Your task to perform on an android device: turn off airplane mode Image 0: 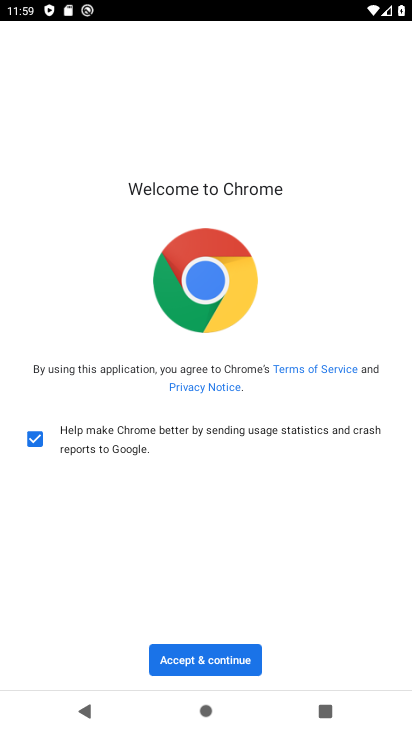
Step 0: press home button
Your task to perform on an android device: turn off airplane mode Image 1: 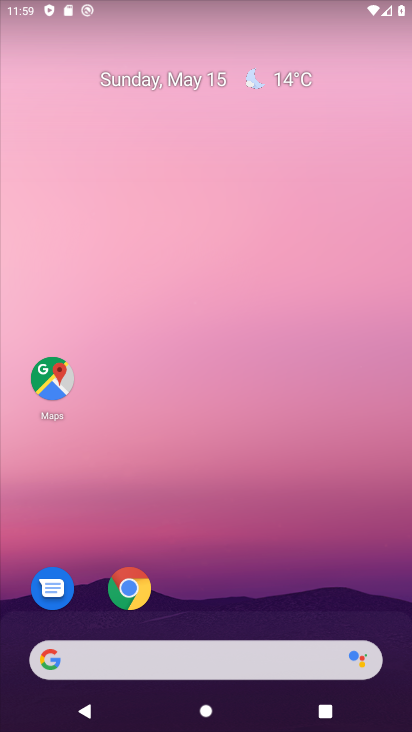
Step 1: drag from (302, 133) to (298, 45)
Your task to perform on an android device: turn off airplane mode Image 2: 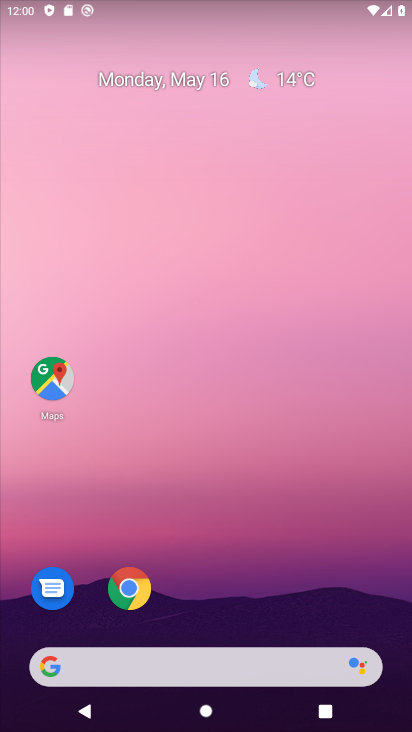
Step 2: drag from (327, 469) to (313, 0)
Your task to perform on an android device: turn off airplane mode Image 3: 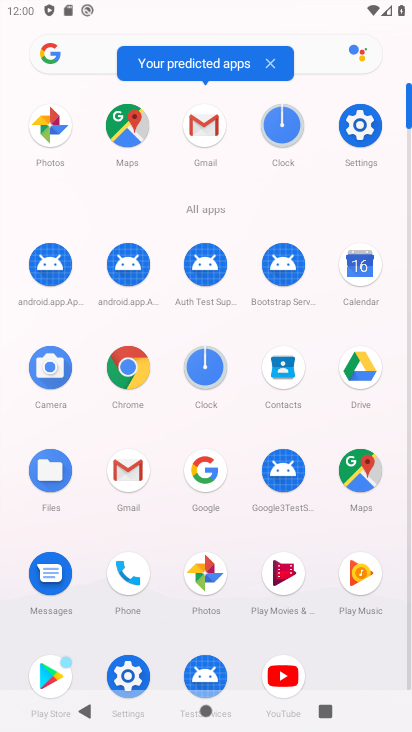
Step 3: click (359, 106)
Your task to perform on an android device: turn off airplane mode Image 4: 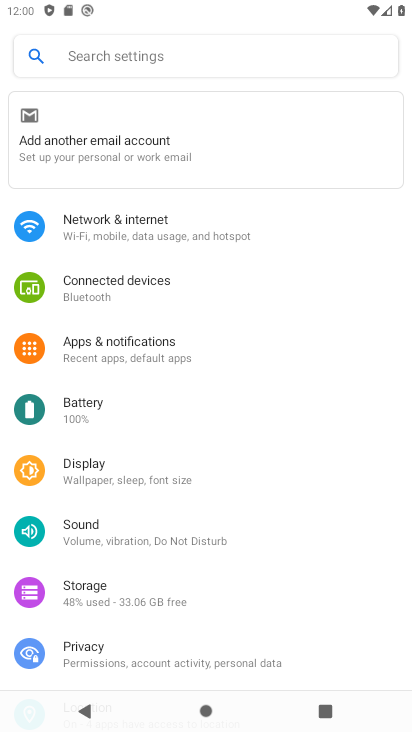
Step 4: click (97, 214)
Your task to perform on an android device: turn off airplane mode Image 5: 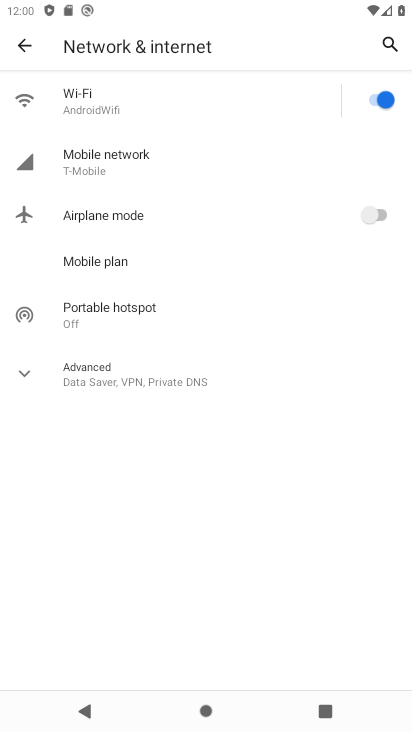
Step 5: task complete